Your task to perform on an android device: check the backup settings in the google photos Image 0: 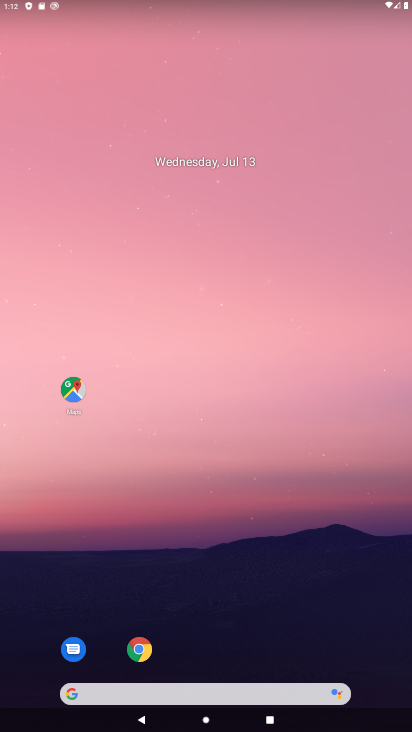
Step 0: drag from (165, 675) to (191, 58)
Your task to perform on an android device: check the backup settings in the google photos Image 1: 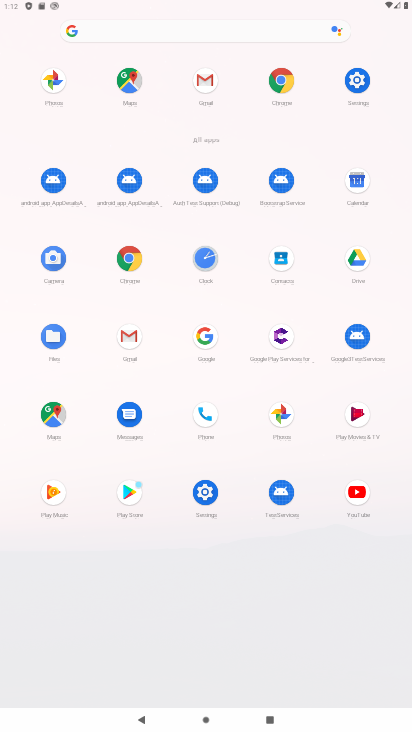
Step 1: click (269, 411)
Your task to perform on an android device: check the backup settings in the google photos Image 2: 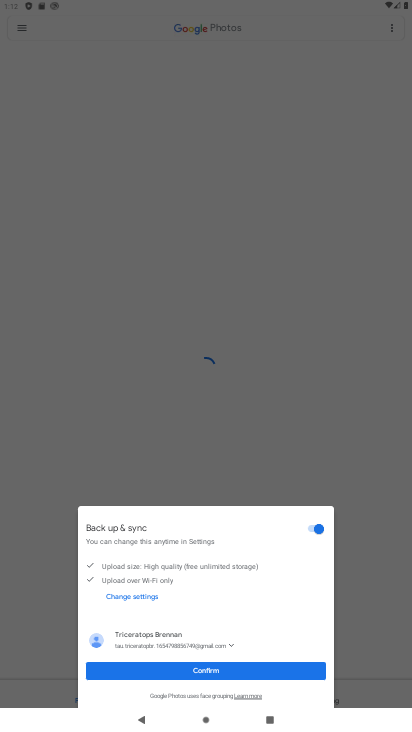
Step 2: click (211, 669)
Your task to perform on an android device: check the backup settings in the google photos Image 3: 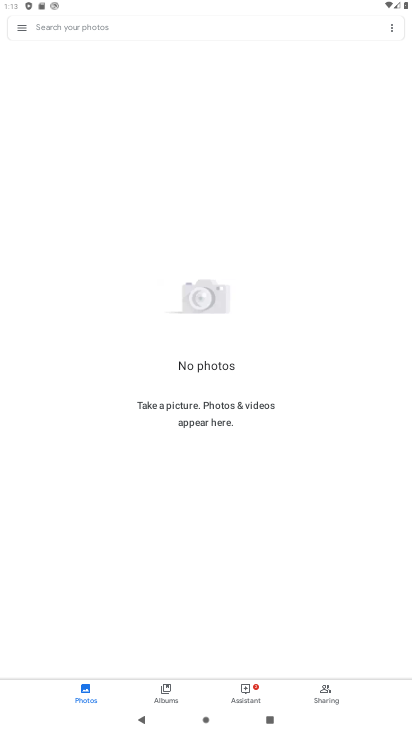
Step 3: click (34, 30)
Your task to perform on an android device: check the backup settings in the google photos Image 4: 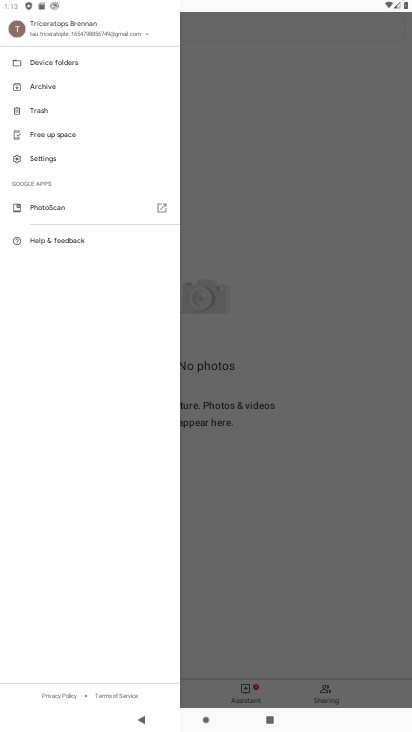
Step 4: click (68, 154)
Your task to perform on an android device: check the backup settings in the google photos Image 5: 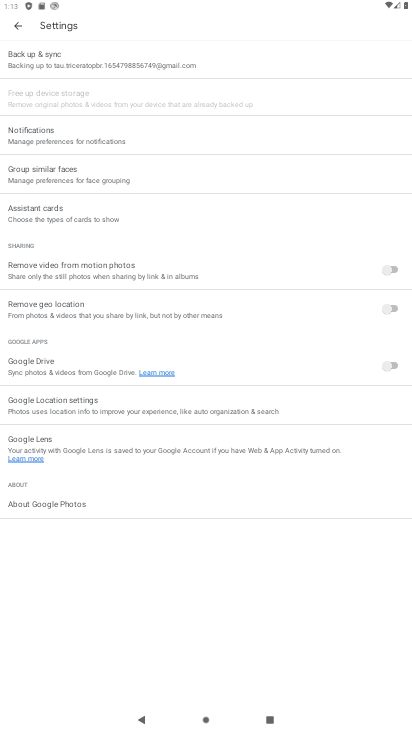
Step 5: click (130, 79)
Your task to perform on an android device: check the backup settings in the google photos Image 6: 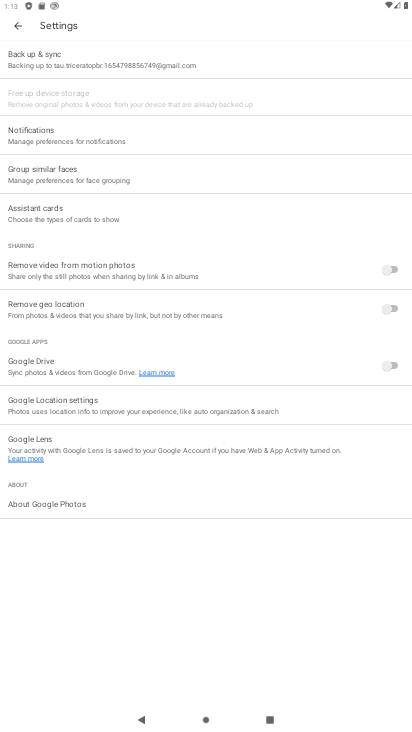
Step 6: click (131, 68)
Your task to perform on an android device: check the backup settings in the google photos Image 7: 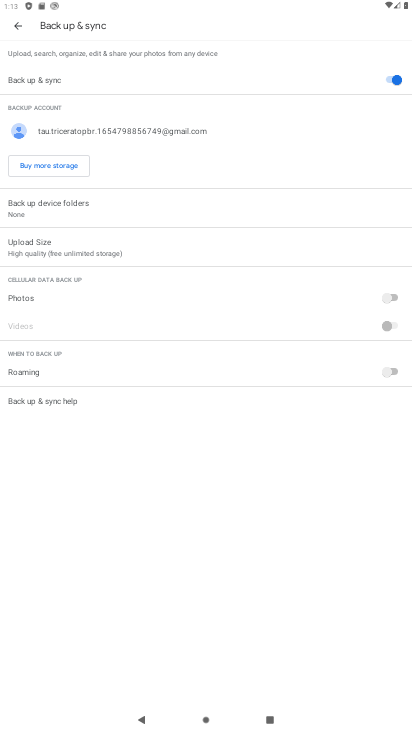
Step 7: task complete